Your task to perform on an android device: Go to accessibility settings Image 0: 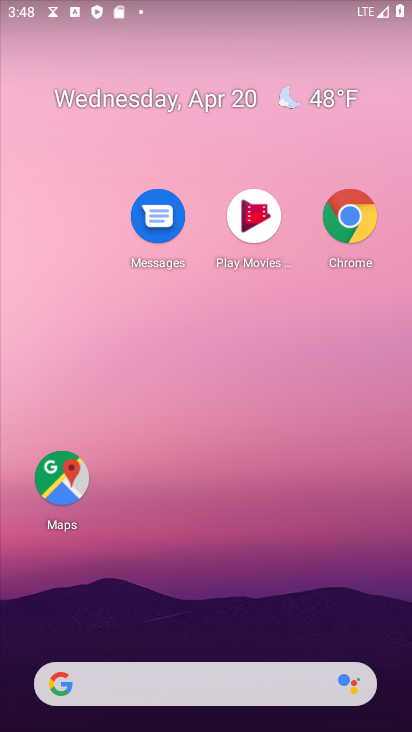
Step 0: drag from (210, 514) to (242, 32)
Your task to perform on an android device: Go to accessibility settings Image 1: 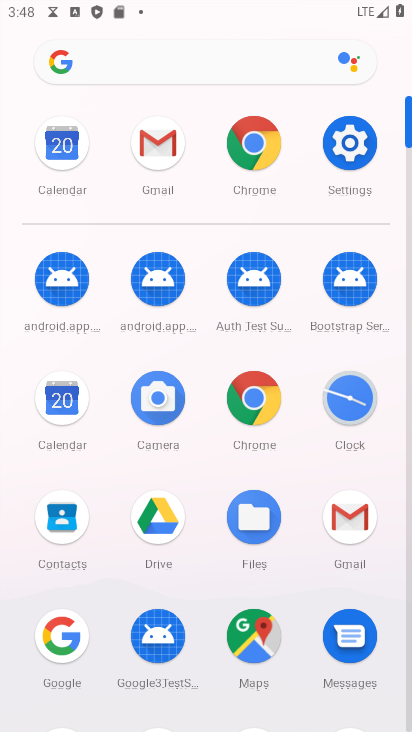
Step 1: click (344, 154)
Your task to perform on an android device: Go to accessibility settings Image 2: 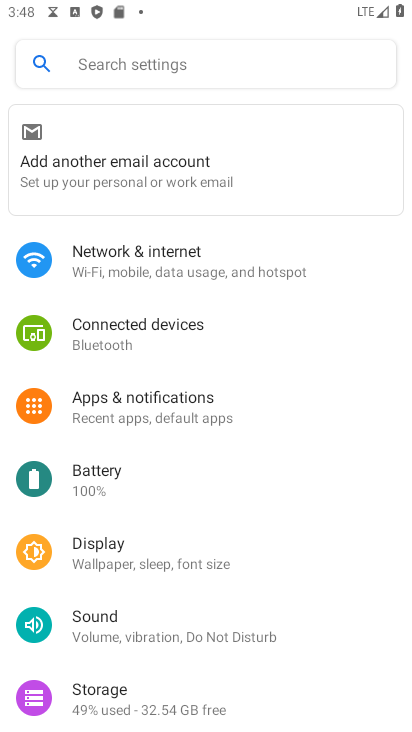
Step 2: drag from (176, 486) to (217, 277)
Your task to perform on an android device: Go to accessibility settings Image 3: 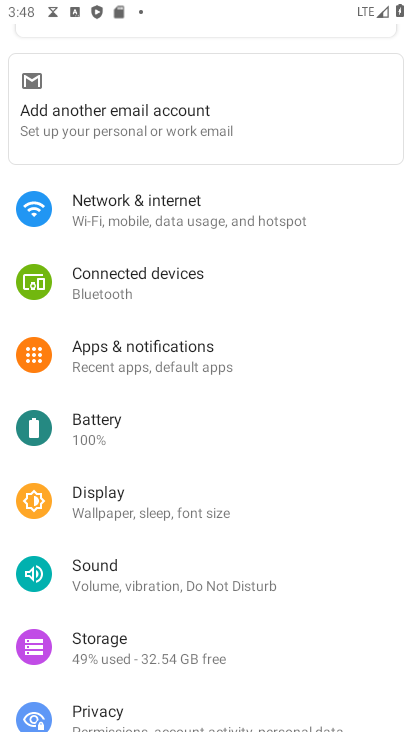
Step 3: drag from (198, 625) to (221, 239)
Your task to perform on an android device: Go to accessibility settings Image 4: 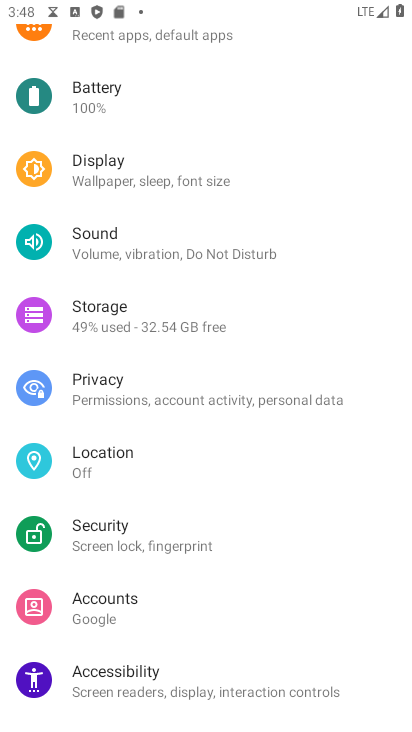
Step 4: click (174, 682)
Your task to perform on an android device: Go to accessibility settings Image 5: 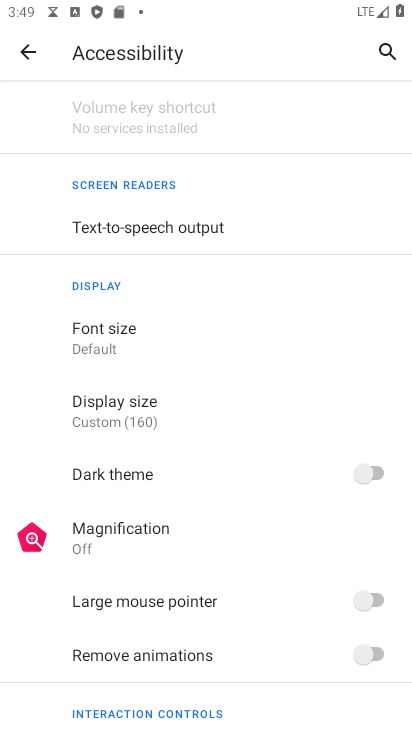
Step 5: task complete